Your task to perform on an android device: toggle translation in the chrome app Image 0: 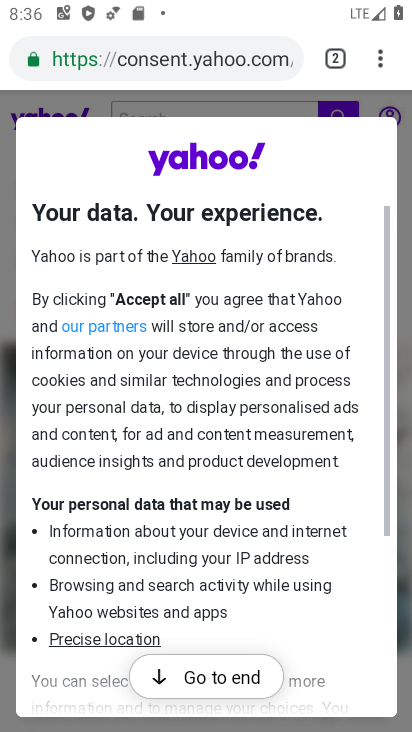
Step 0: click (382, 65)
Your task to perform on an android device: toggle translation in the chrome app Image 1: 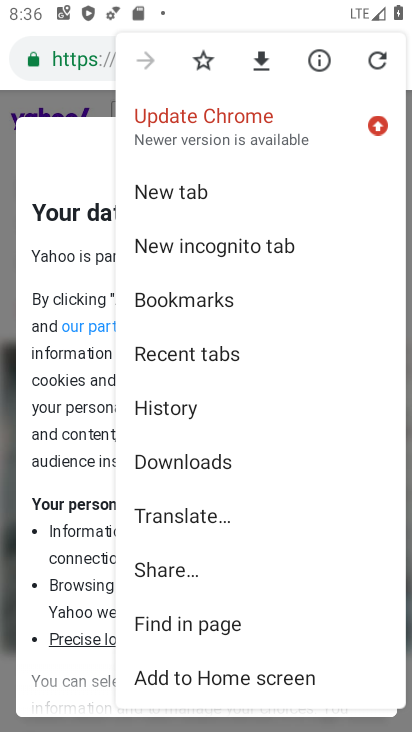
Step 1: drag from (165, 620) to (189, 322)
Your task to perform on an android device: toggle translation in the chrome app Image 2: 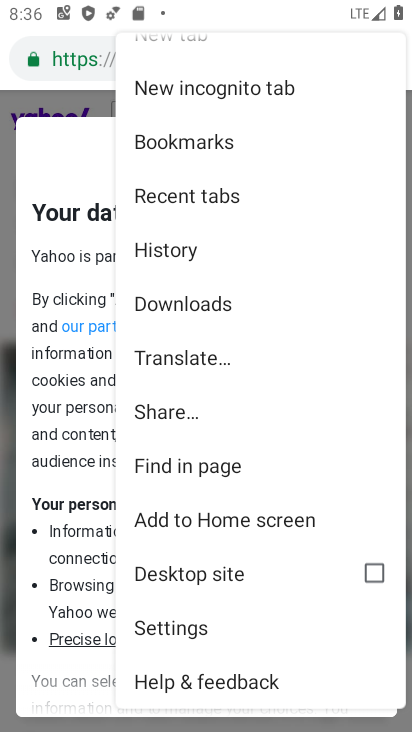
Step 2: click (201, 632)
Your task to perform on an android device: toggle translation in the chrome app Image 3: 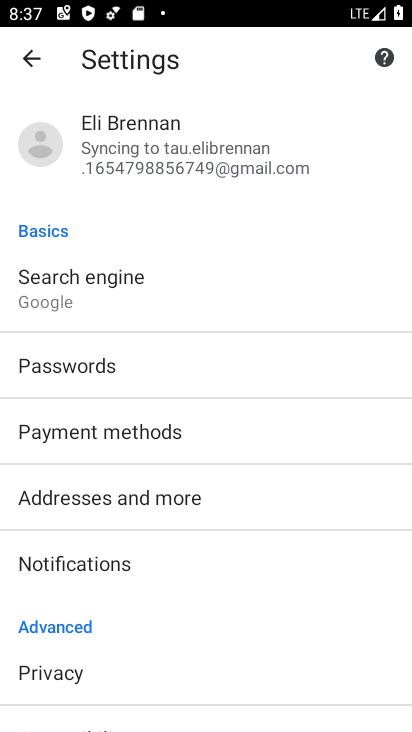
Step 3: drag from (144, 550) to (183, 265)
Your task to perform on an android device: toggle translation in the chrome app Image 4: 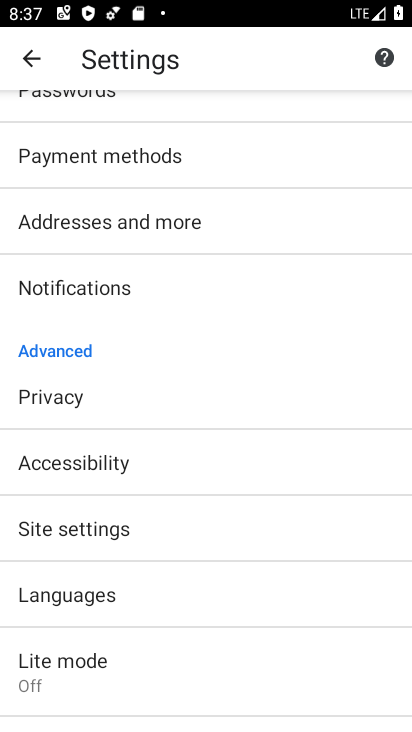
Step 4: click (99, 596)
Your task to perform on an android device: toggle translation in the chrome app Image 5: 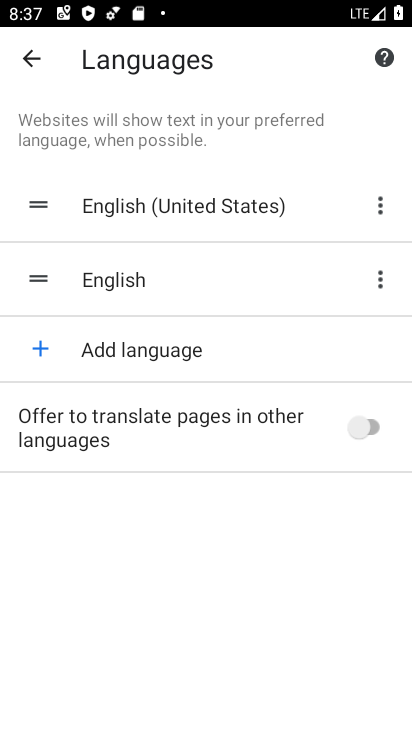
Step 5: click (339, 439)
Your task to perform on an android device: toggle translation in the chrome app Image 6: 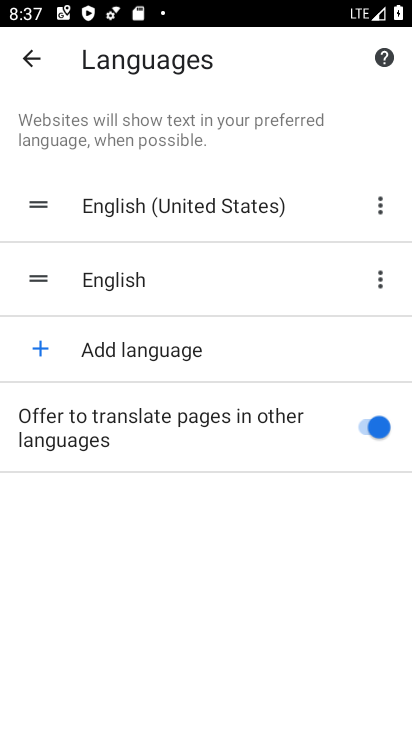
Step 6: task complete